Your task to perform on an android device: Go to Google Image 0: 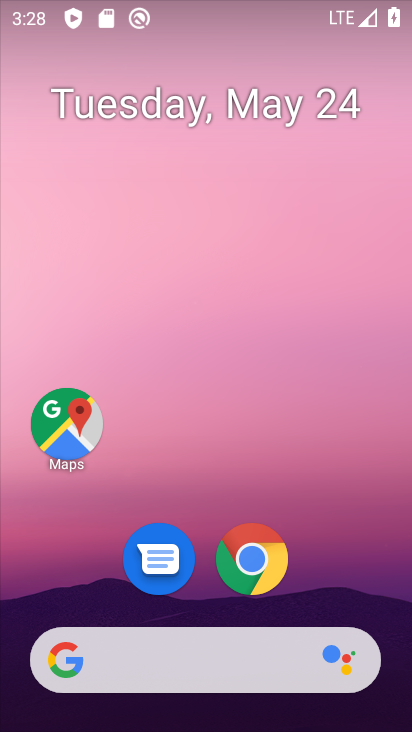
Step 0: drag from (322, 563) to (254, 50)
Your task to perform on an android device: Go to Google Image 1: 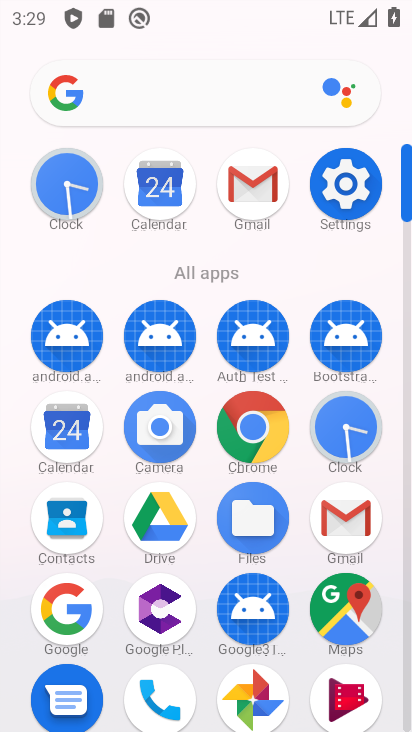
Step 1: click (62, 606)
Your task to perform on an android device: Go to Google Image 2: 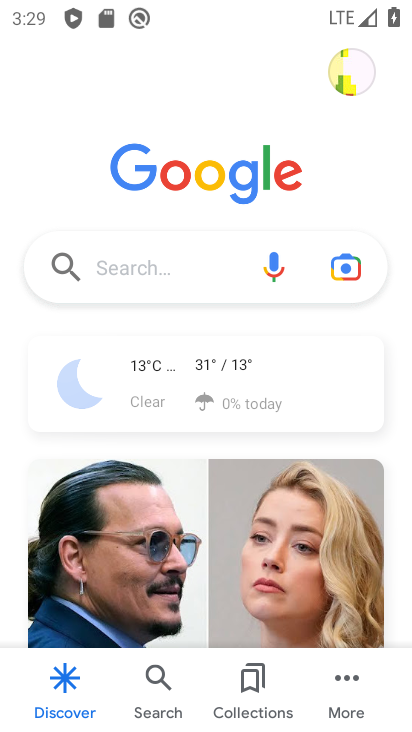
Step 2: task complete